Your task to perform on an android device: uninstall "Airtel Thanks" Image 0: 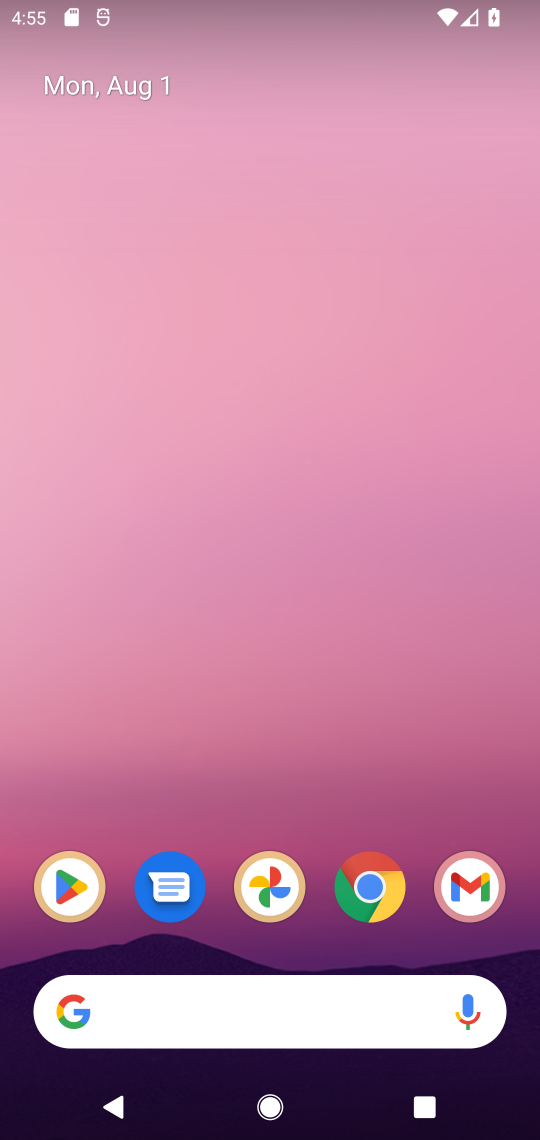
Step 0: click (71, 910)
Your task to perform on an android device: uninstall "Airtel Thanks" Image 1: 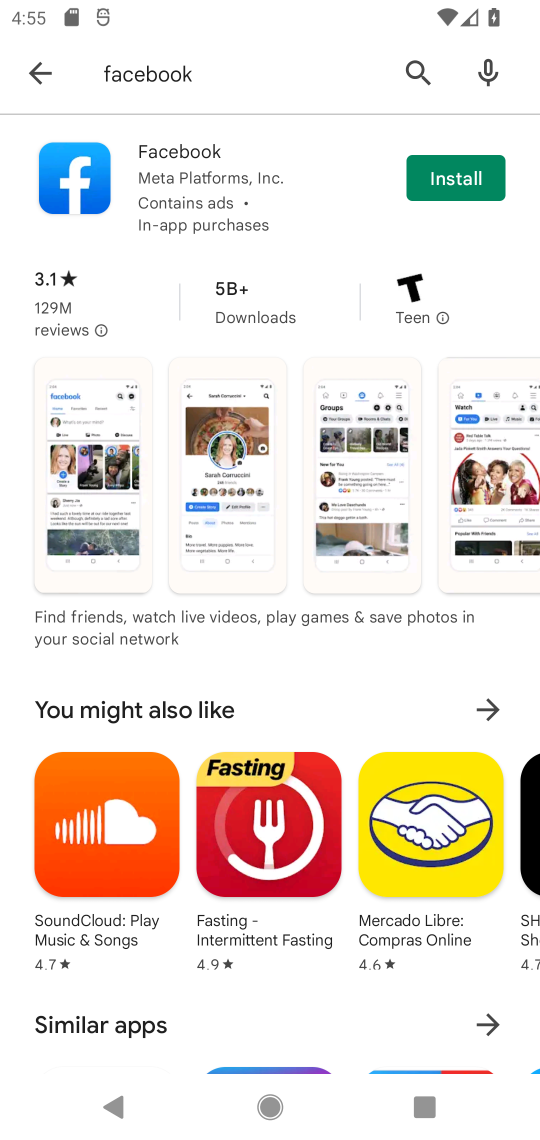
Step 1: click (82, 68)
Your task to perform on an android device: uninstall "Airtel Thanks" Image 2: 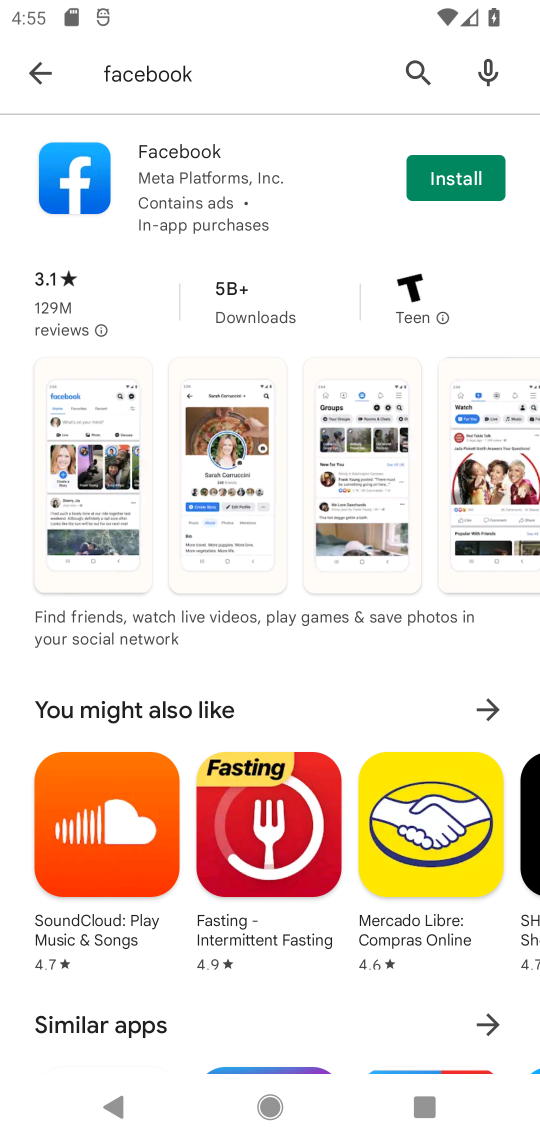
Step 2: click (58, 75)
Your task to perform on an android device: uninstall "Airtel Thanks" Image 3: 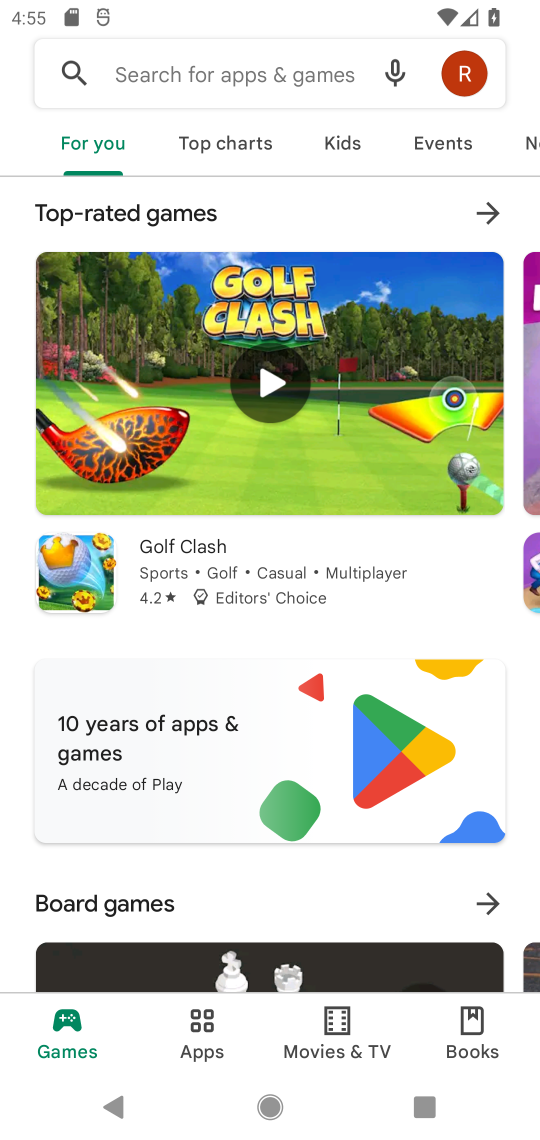
Step 3: click (138, 69)
Your task to perform on an android device: uninstall "Airtel Thanks" Image 4: 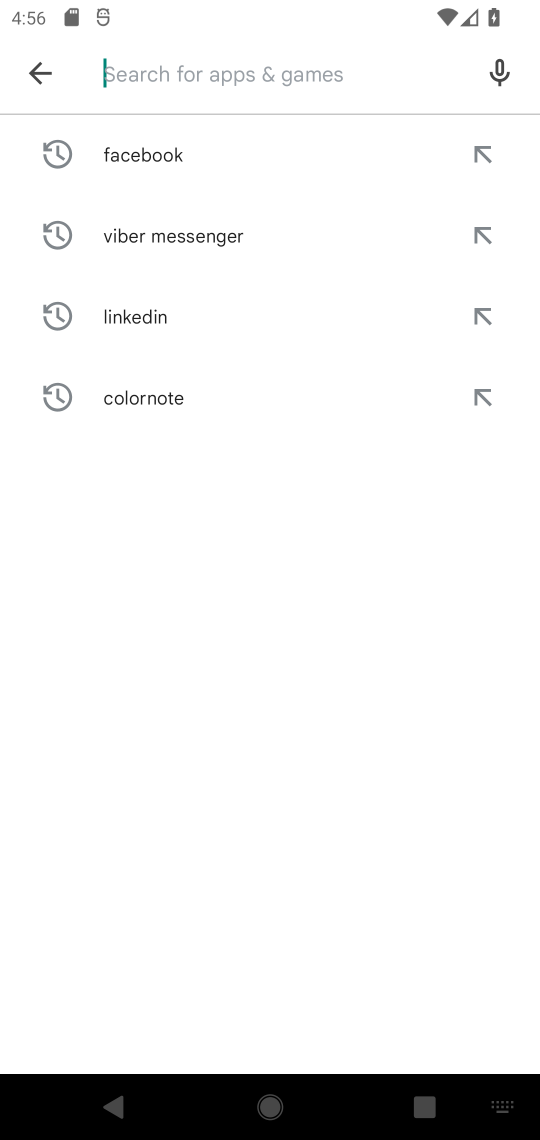
Step 4: type "Airtel"
Your task to perform on an android device: uninstall "Airtel Thanks" Image 5: 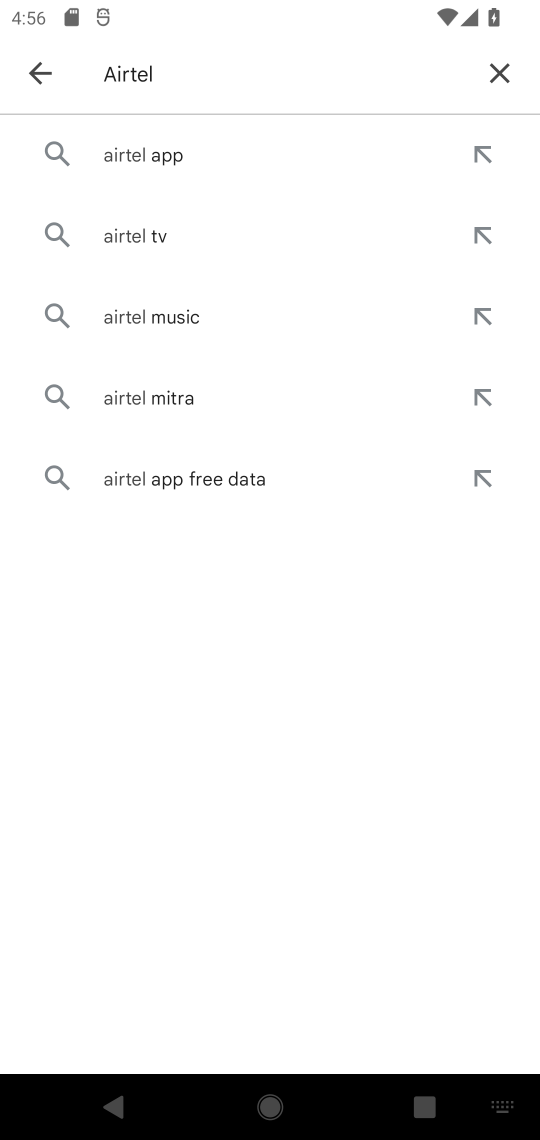
Step 5: click (120, 185)
Your task to perform on an android device: uninstall "Airtel Thanks" Image 6: 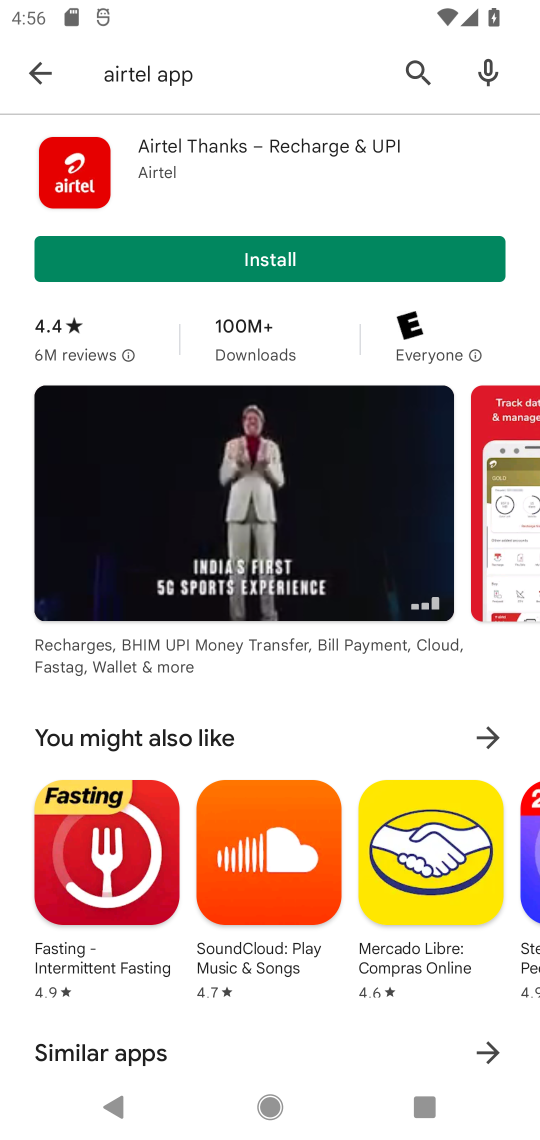
Step 6: task complete